Your task to perform on an android device: Add "corsair k70" to the cart on newegg.com Image 0: 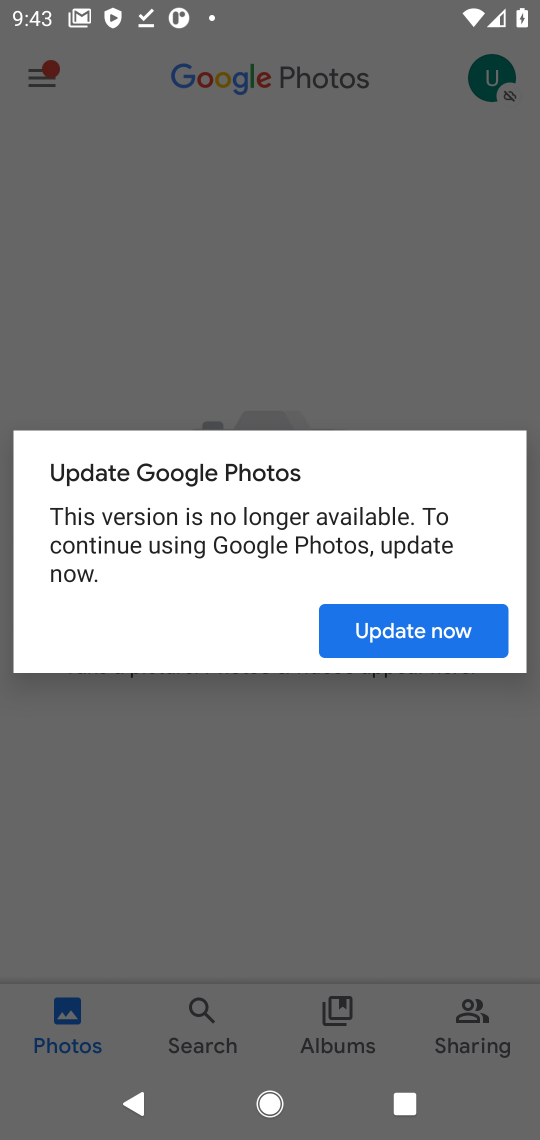
Step 0: press home button
Your task to perform on an android device: Add "corsair k70" to the cart on newegg.com Image 1: 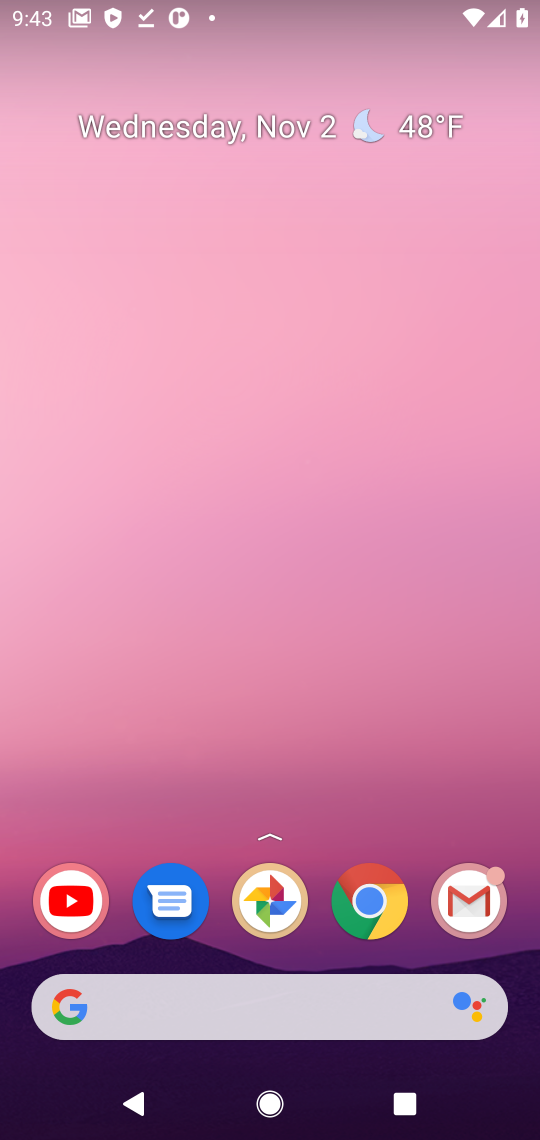
Step 1: click (385, 907)
Your task to perform on an android device: Add "corsair k70" to the cart on newegg.com Image 2: 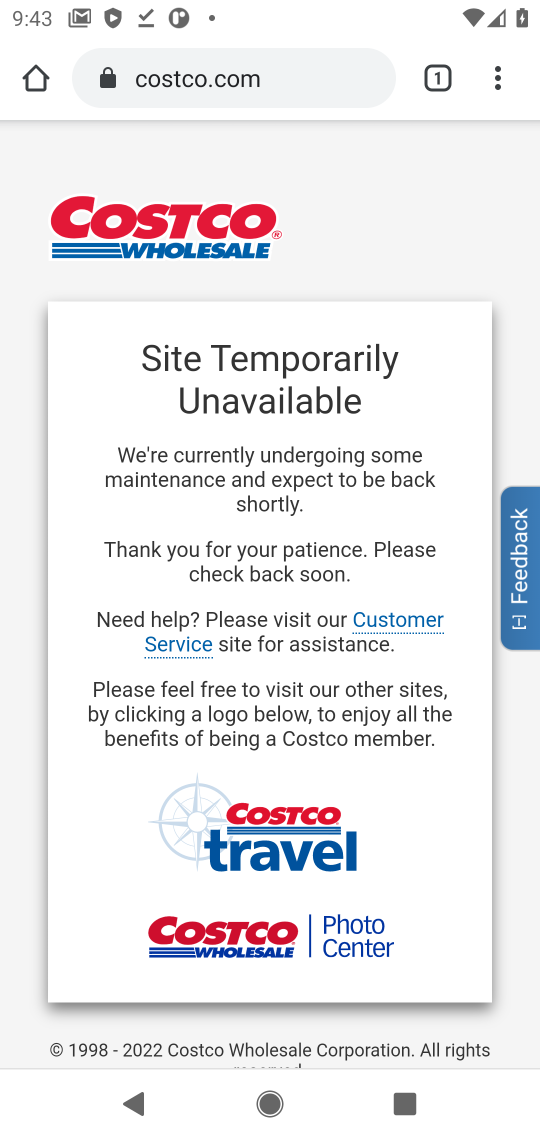
Step 2: click (255, 72)
Your task to perform on an android device: Add "corsair k70" to the cart on newegg.com Image 3: 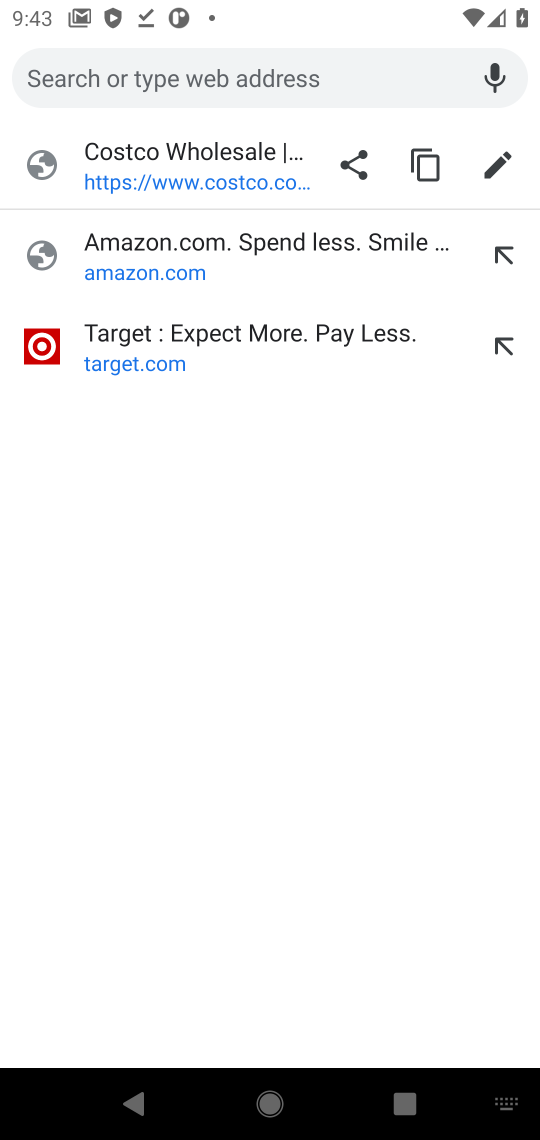
Step 3: type "newegg.com"
Your task to perform on an android device: Add "corsair k70" to the cart on newegg.com Image 4: 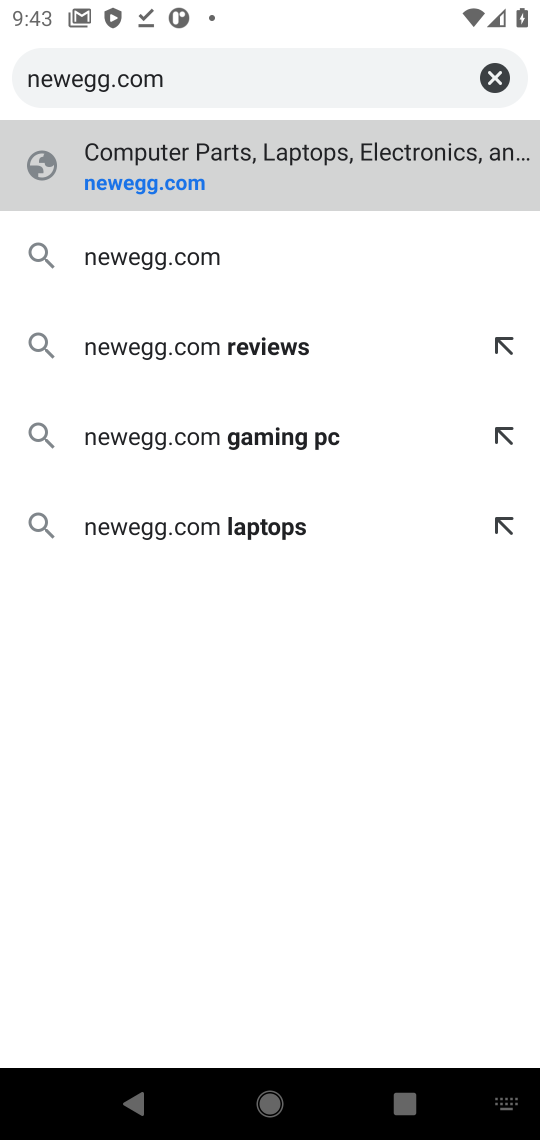
Step 4: click (228, 177)
Your task to perform on an android device: Add "corsair k70" to the cart on newegg.com Image 5: 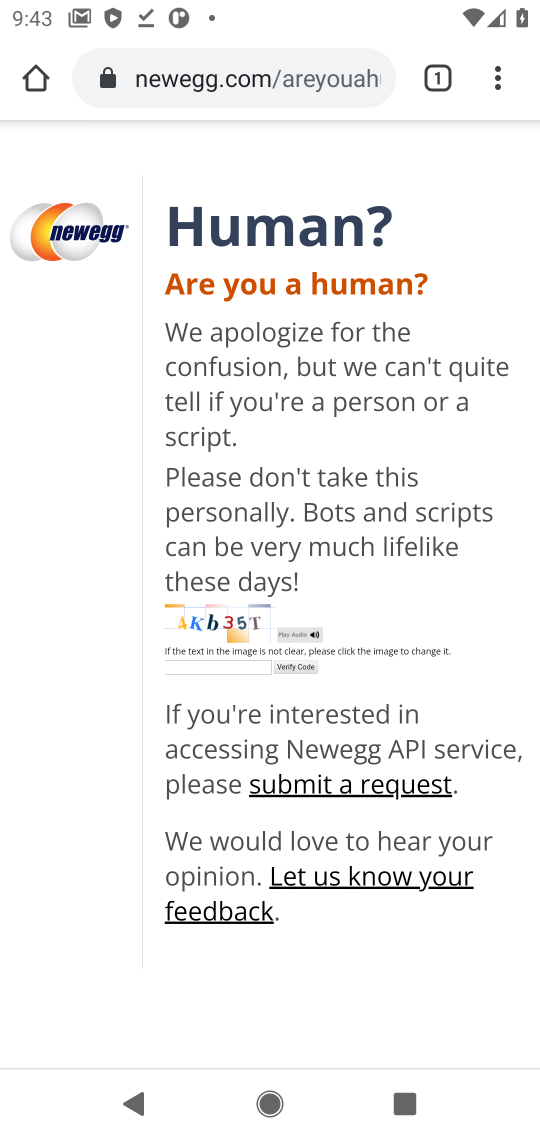
Step 5: click (234, 670)
Your task to perform on an android device: Add "corsair k70" to the cart on newegg.com Image 6: 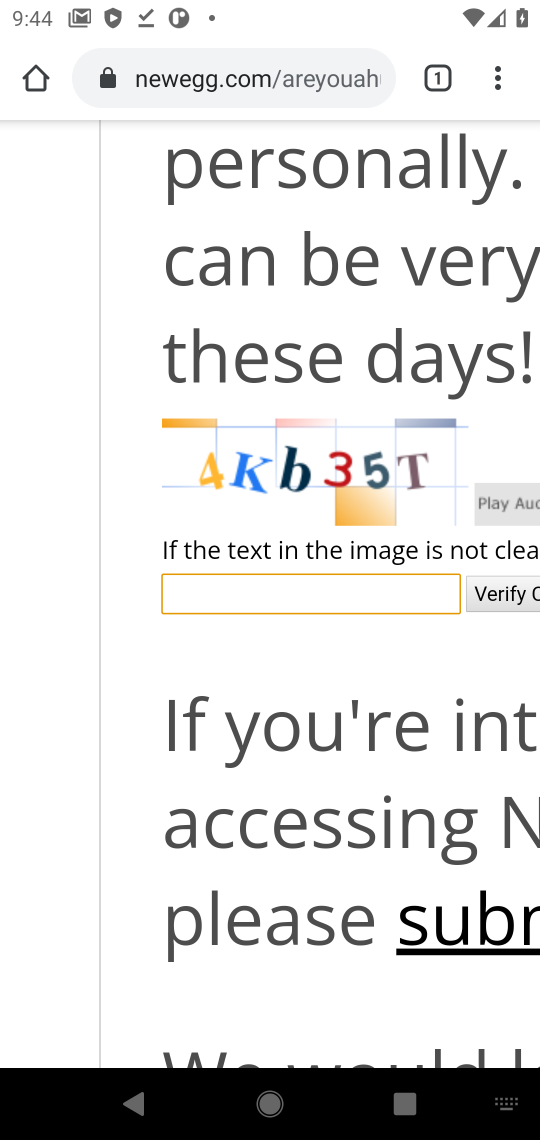
Step 6: type "4Kb35T"
Your task to perform on an android device: Add "corsair k70" to the cart on newegg.com Image 7: 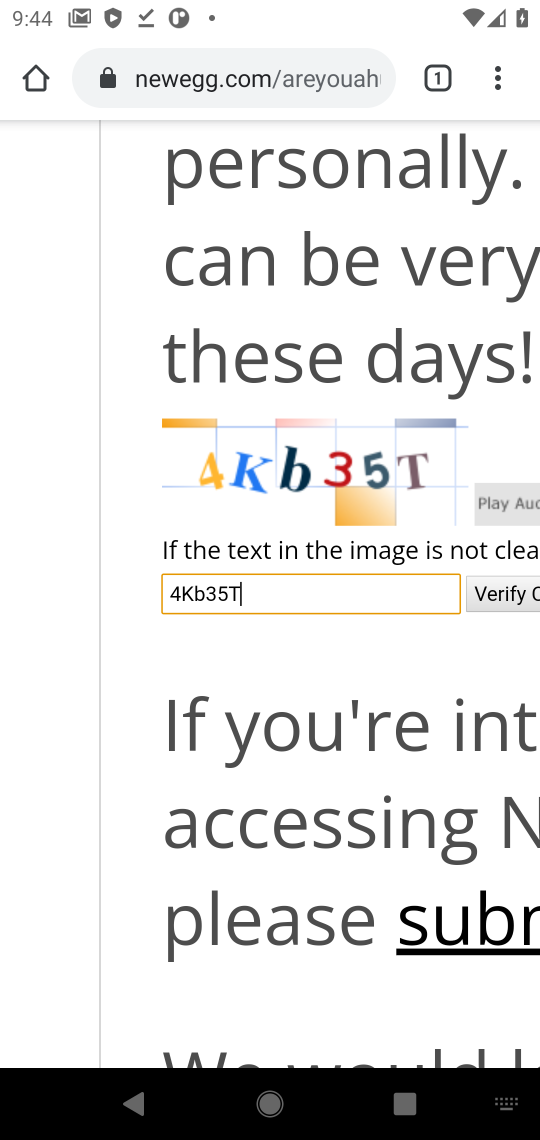
Step 7: click (505, 598)
Your task to perform on an android device: Add "corsair k70" to the cart on newegg.com Image 8: 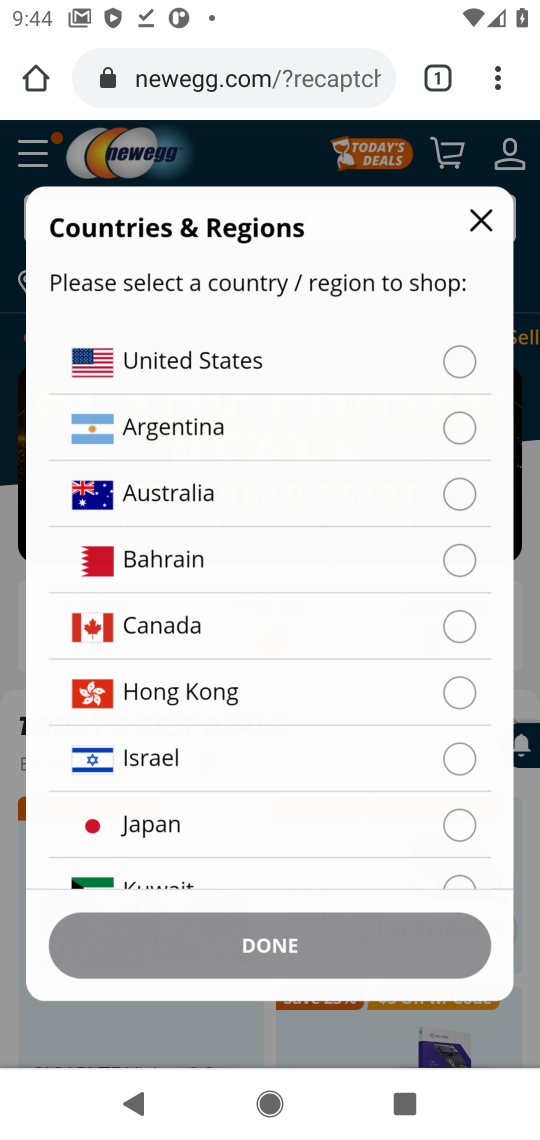
Step 8: click (359, 213)
Your task to perform on an android device: Add "corsair k70" to the cart on newegg.com Image 9: 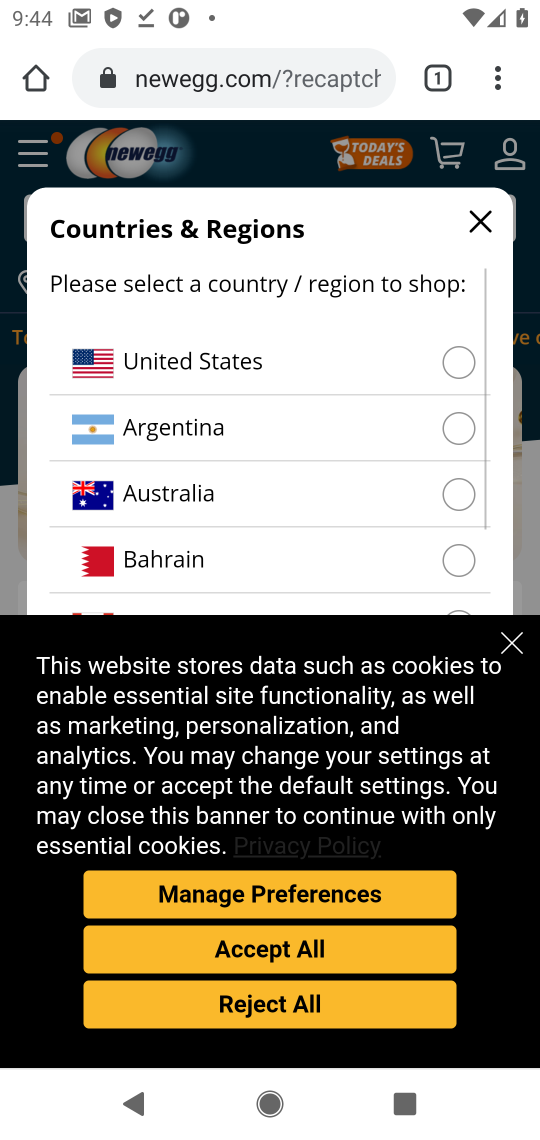
Step 9: click (480, 221)
Your task to perform on an android device: Add "corsair k70" to the cart on newegg.com Image 10: 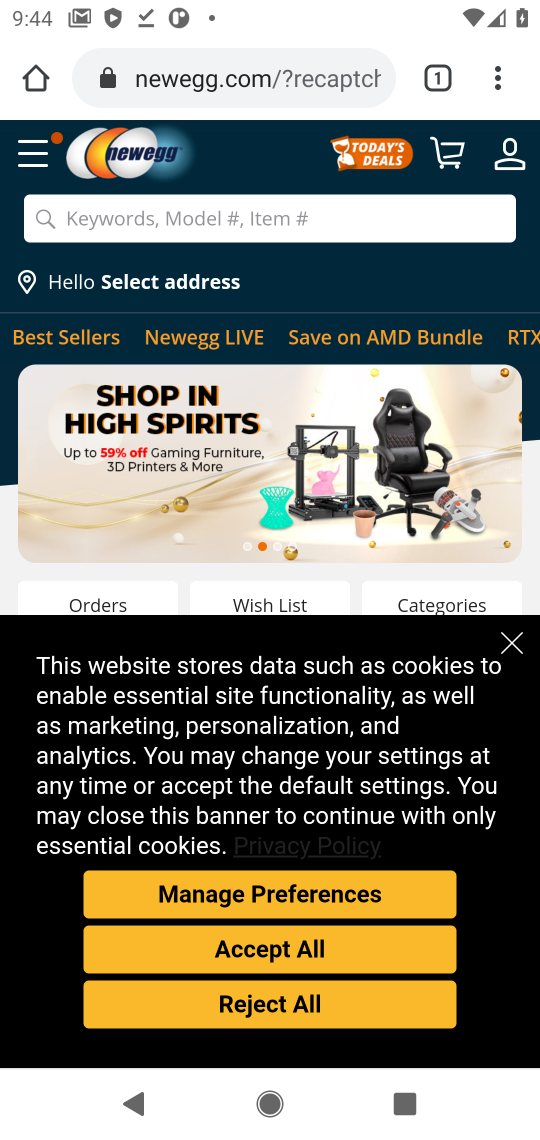
Step 10: click (509, 645)
Your task to perform on an android device: Add "corsair k70" to the cart on newegg.com Image 11: 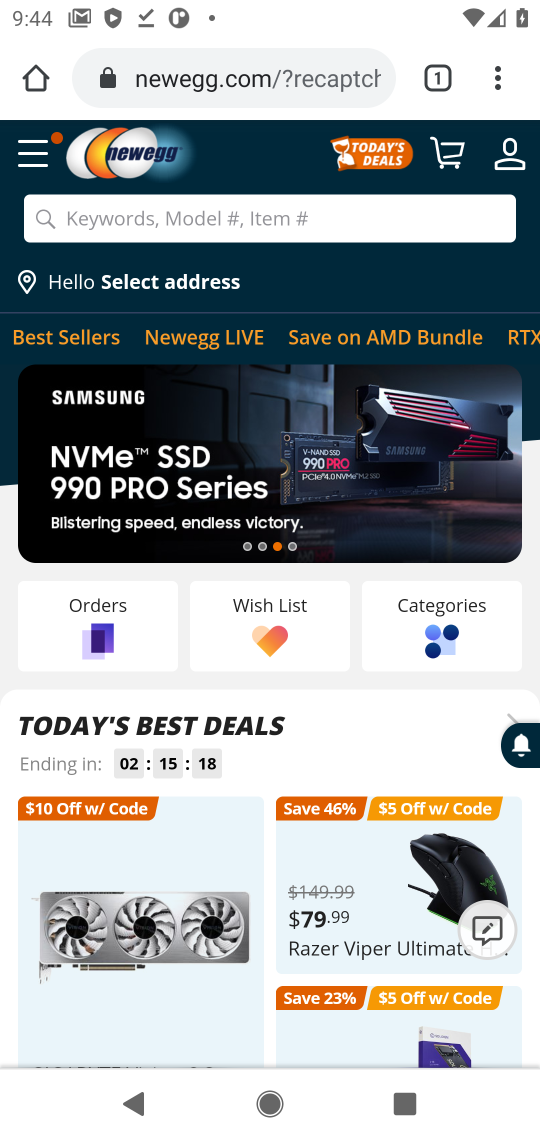
Step 11: click (233, 221)
Your task to perform on an android device: Add "corsair k70" to the cart on newegg.com Image 12: 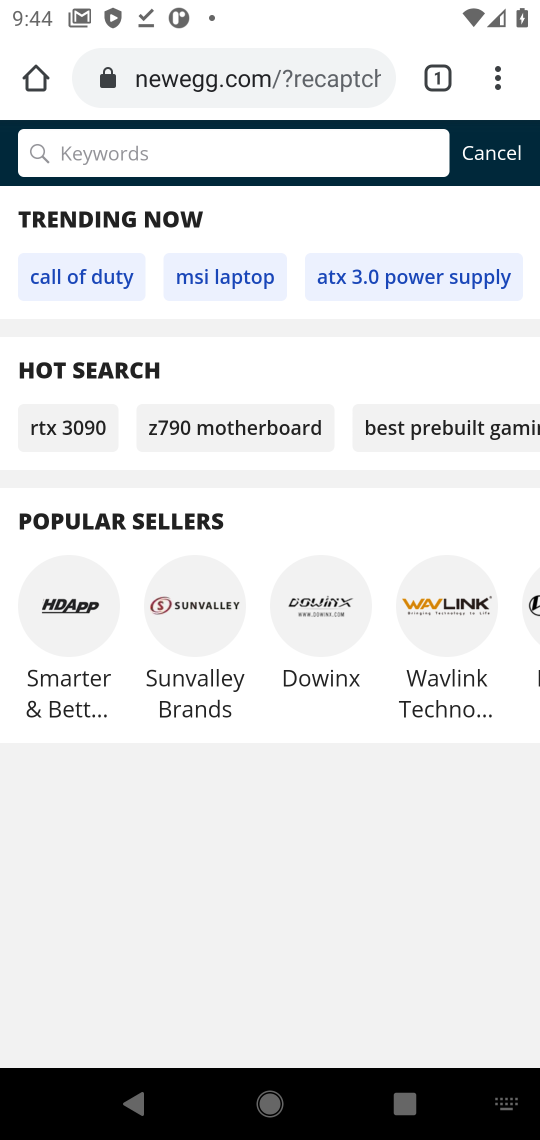
Step 12: type "corsair k70"
Your task to perform on an android device: Add "corsair k70" to the cart on newegg.com Image 13: 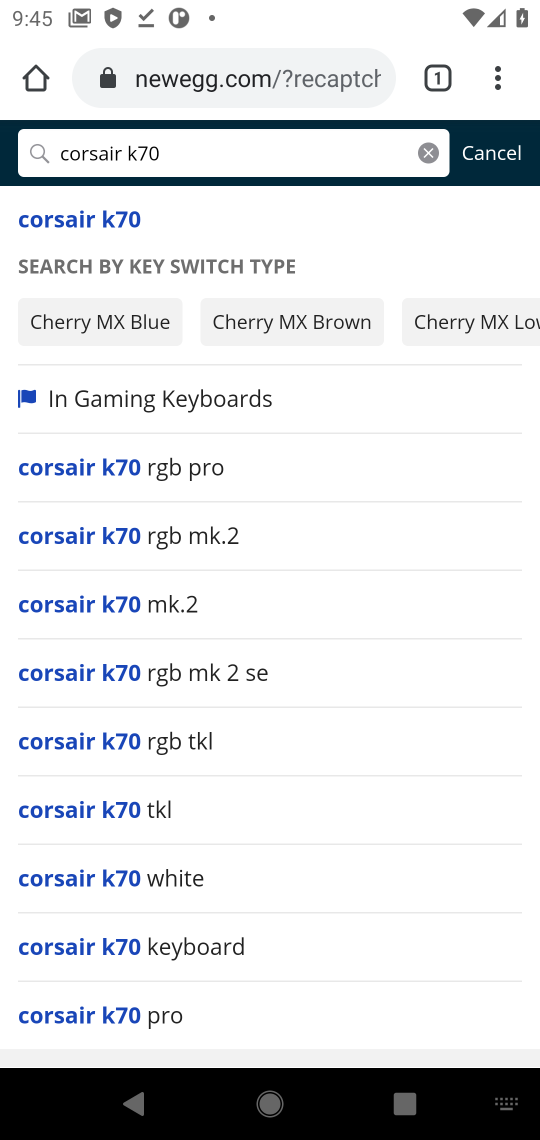
Step 13: click (85, 220)
Your task to perform on an android device: Add "corsair k70" to the cart on newegg.com Image 14: 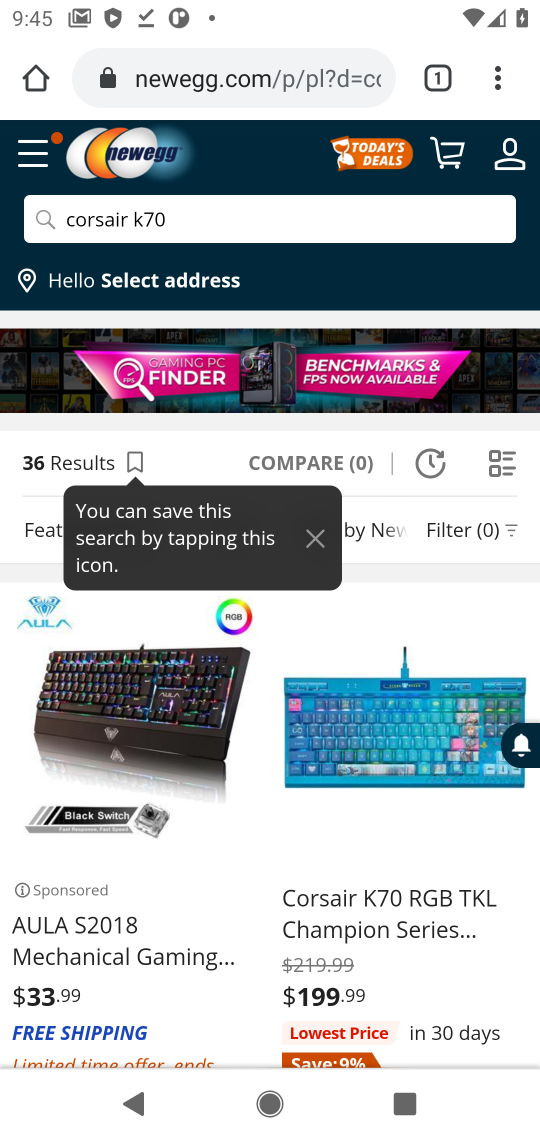
Step 14: click (384, 908)
Your task to perform on an android device: Add "corsair k70" to the cart on newegg.com Image 15: 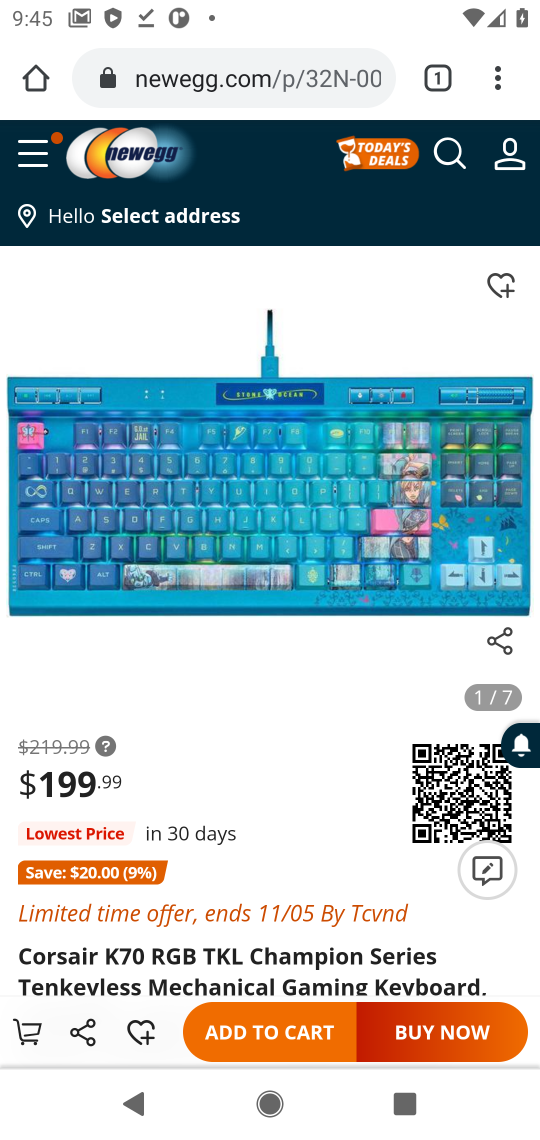
Step 15: click (266, 1024)
Your task to perform on an android device: Add "corsair k70" to the cart on newegg.com Image 16: 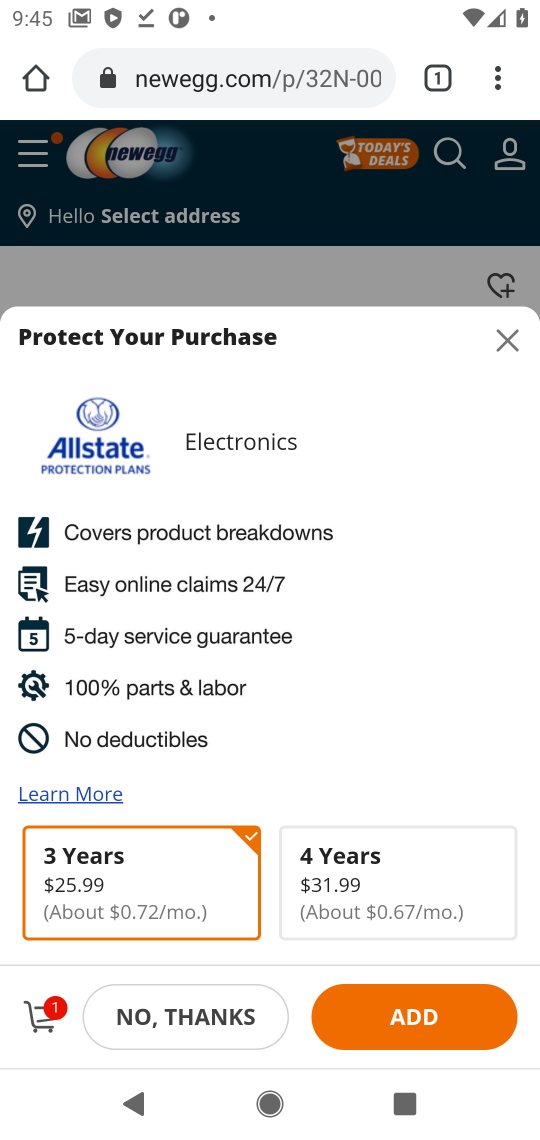
Step 16: task complete